Your task to perform on an android device: open app "Life360: Find Family & Friends" Image 0: 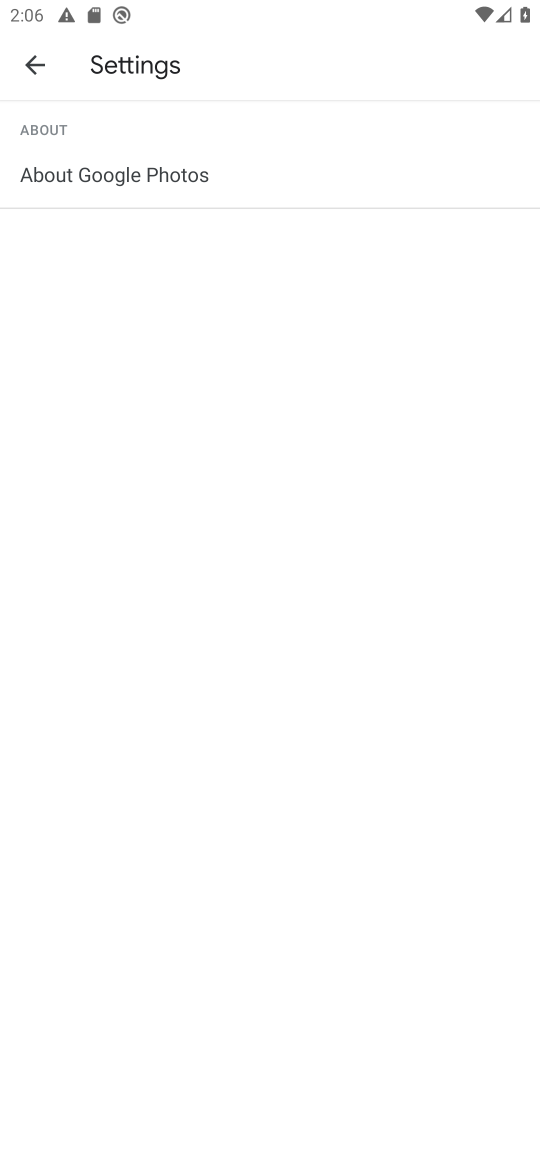
Step 0: press home button
Your task to perform on an android device: open app "Life360: Find Family & Friends" Image 1: 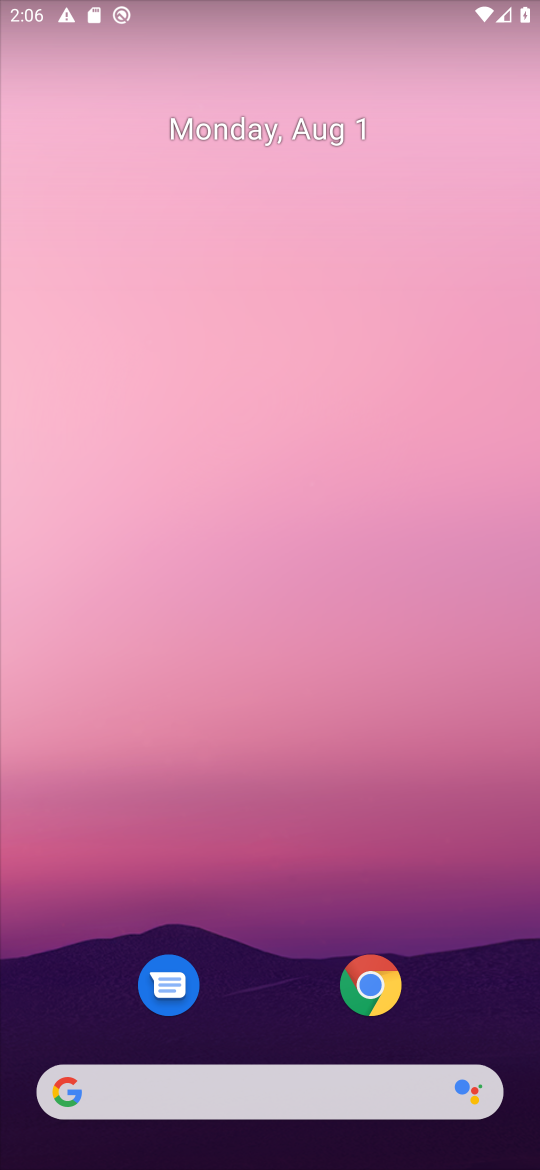
Step 1: drag from (308, 1131) to (274, 117)
Your task to perform on an android device: open app "Life360: Find Family & Friends" Image 2: 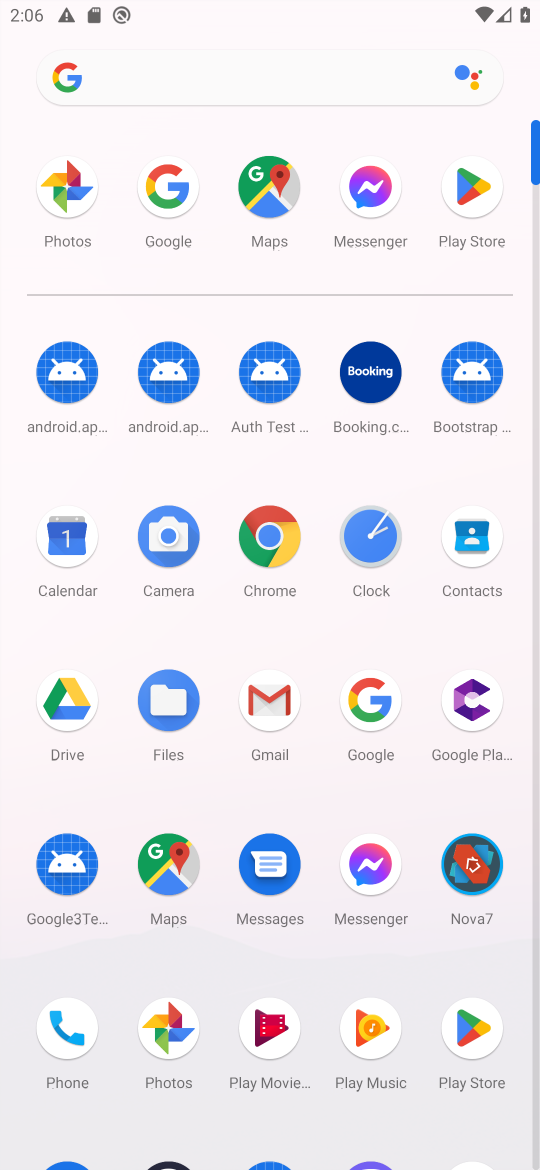
Step 2: click (458, 184)
Your task to perform on an android device: open app "Life360: Find Family & Friends" Image 3: 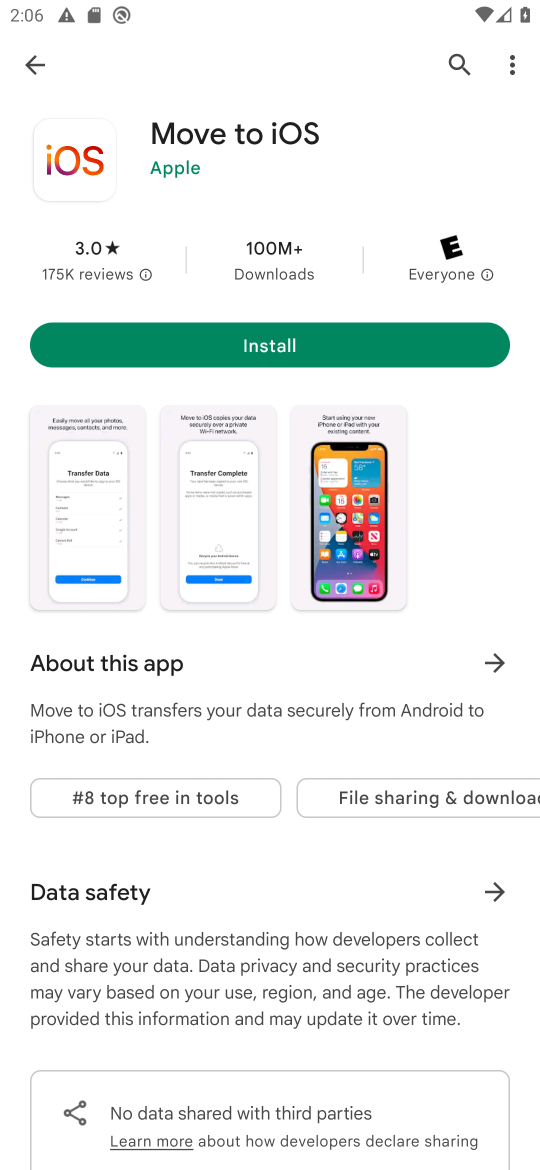
Step 3: click (459, 62)
Your task to perform on an android device: open app "Life360: Find Family & Friends" Image 4: 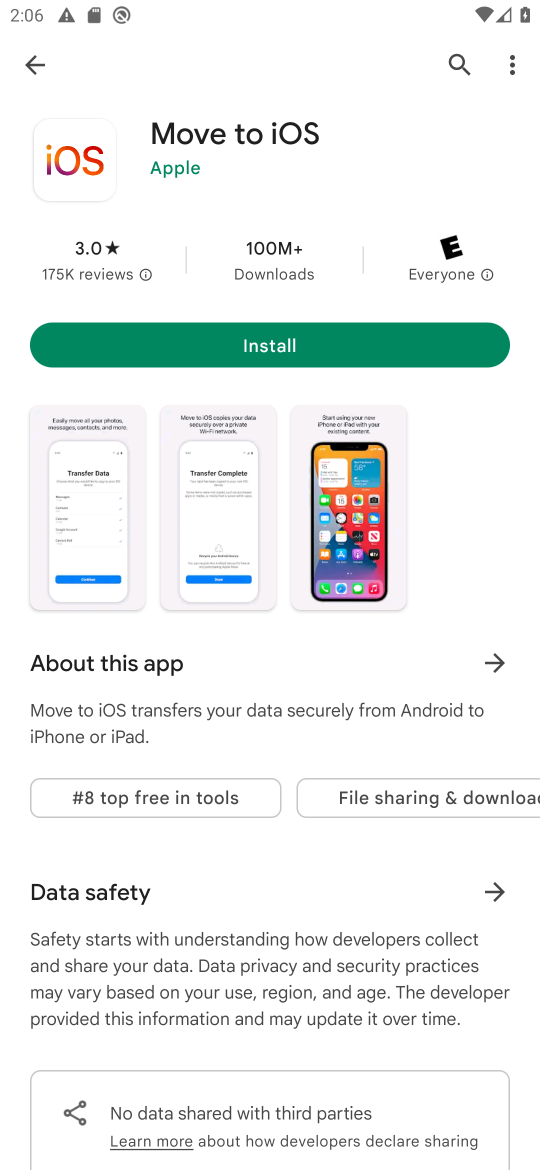
Step 4: click (455, 54)
Your task to perform on an android device: open app "Life360: Find Family & Friends" Image 5: 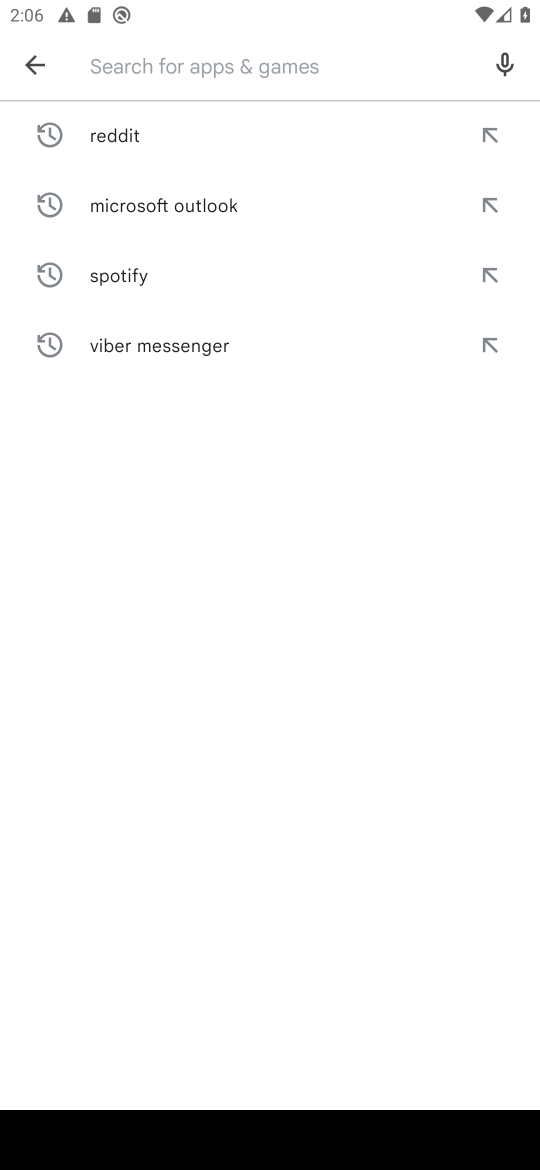
Step 5: type "Life360: Find Family & Friends"
Your task to perform on an android device: open app "Life360: Find Family & Friends" Image 6: 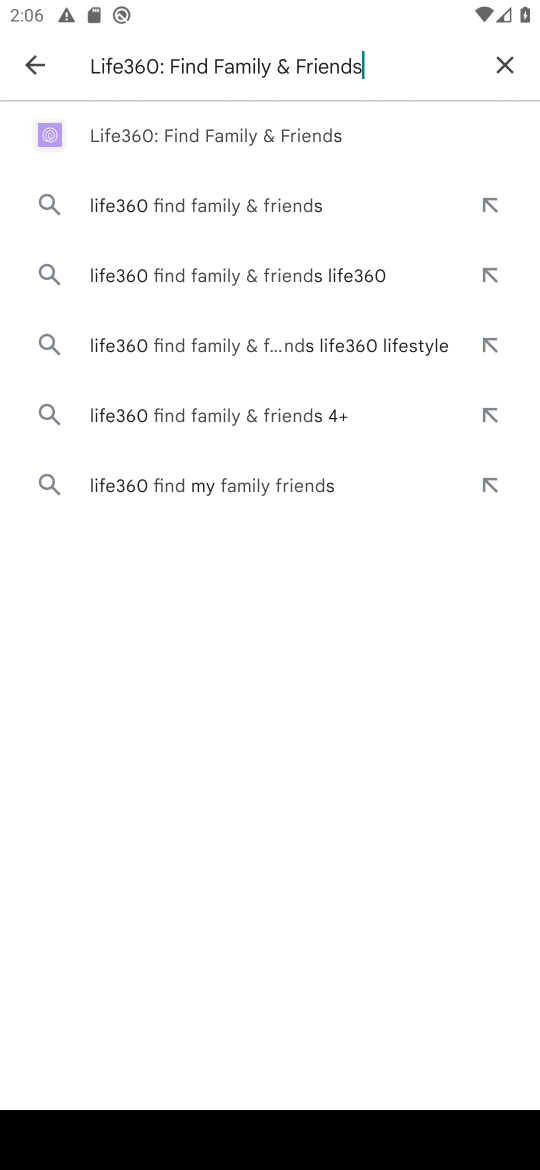
Step 6: type ""
Your task to perform on an android device: open app "Life360: Find Family & Friends" Image 7: 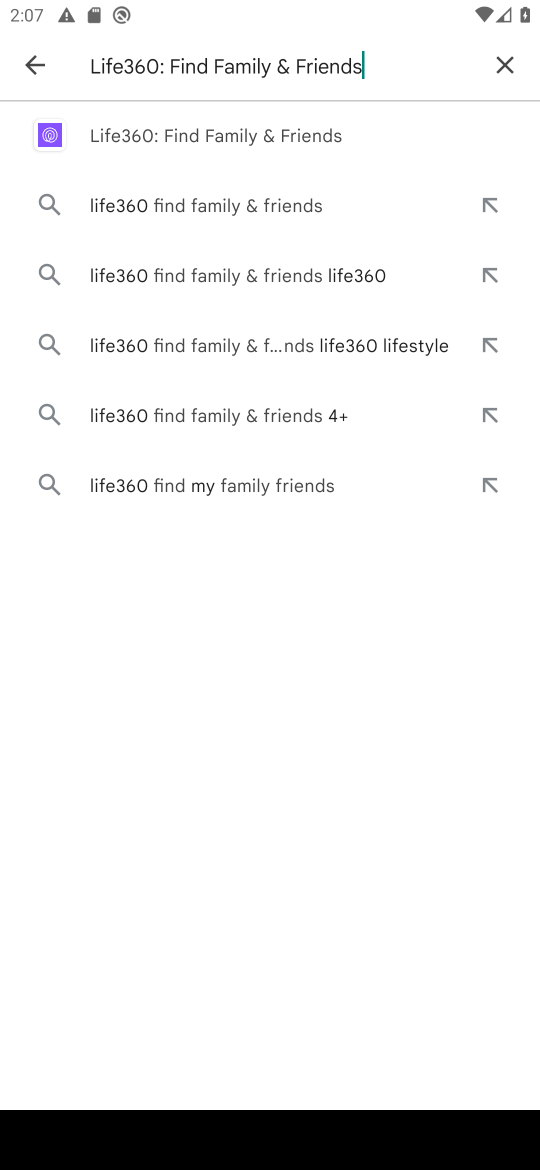
Step 7: click (156, 130)
Your task to perform on an android device: open app "Life360: Find Family & Friends" Image 8: 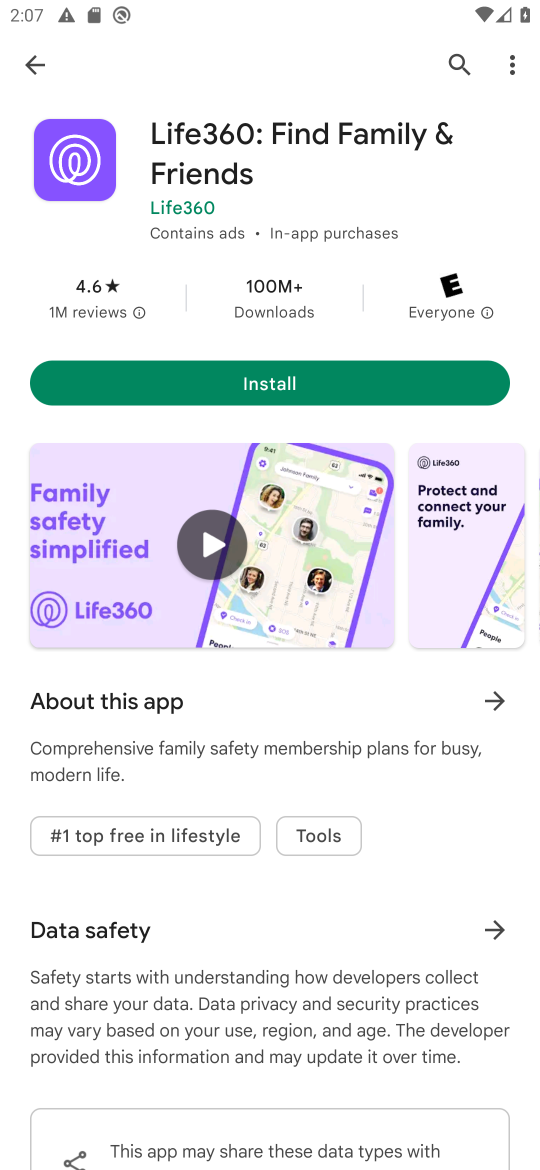
Step 8: task complete